Your task to perform on an android device: Open Youtube and go to the subscriptions tab Image 0: 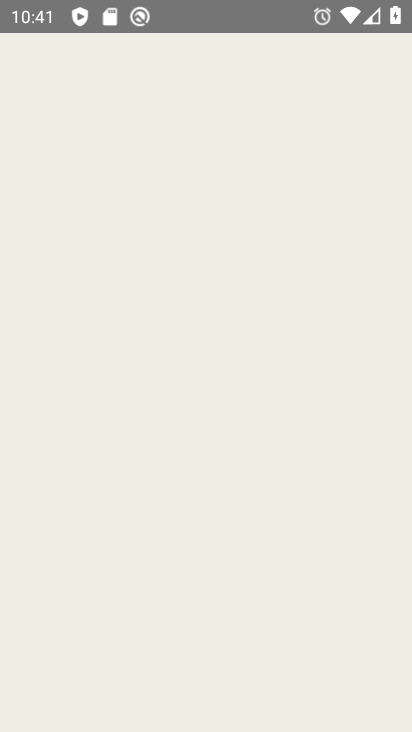
Step 0: press home button
Your task to perform on an android device: Open Youtube and go to the subscriptions tab Image 1: 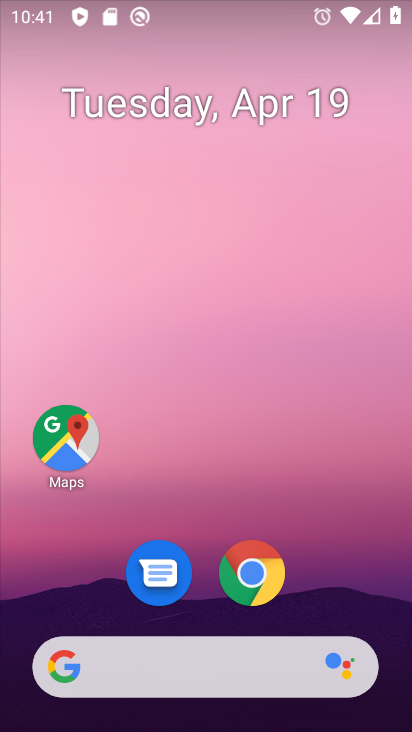
Step 1: drag from (336, 512) to (267, 77)
Your task to perform on an android device: Open Youtube and go to the subscriptions tab Image 2: 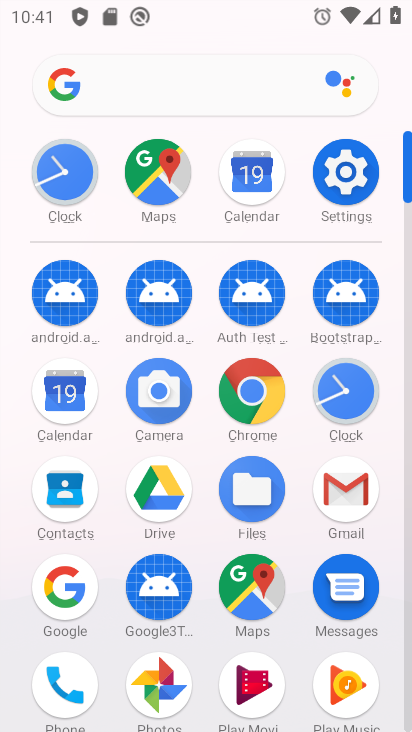
Step 2: drag from (210, 660) to (206, 230)
Your task to perform on an android device: Open Youtube and go to the subscriptions tab Image 3: 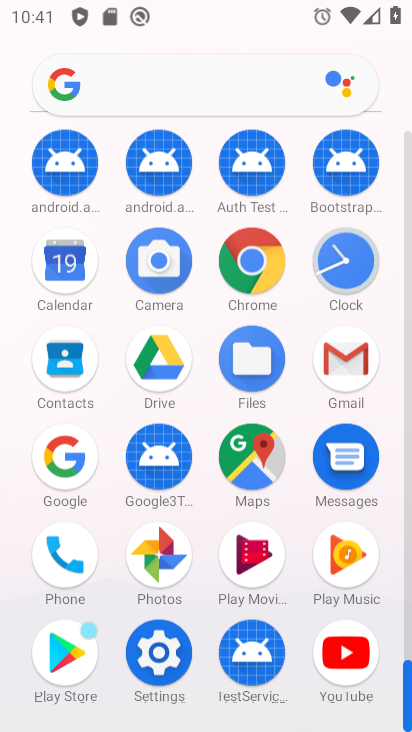
Step 3: click (338, 652)
Your task to perform on an android device: Open Youtube and go to the subscriptions tab Image 4: 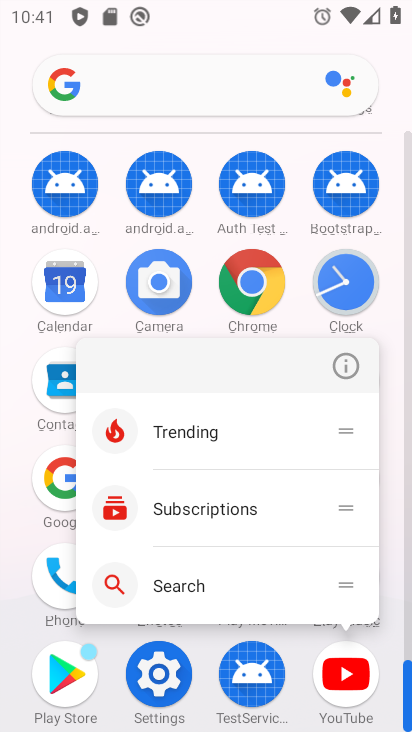
Step 4: click (187, 503)
Your task to perform on an android device: Open Youtube and go to the subscriptions tab Image 5: 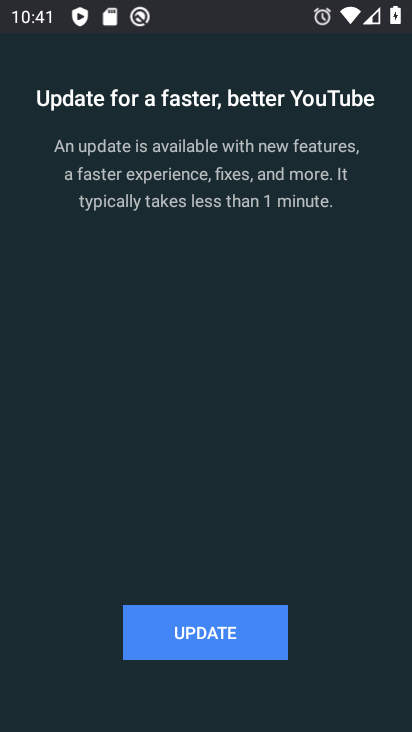
Step 5: click (238, 640)
Your task to perform on an android device: Open Youtube and go to the subscriptions tab Image 6: 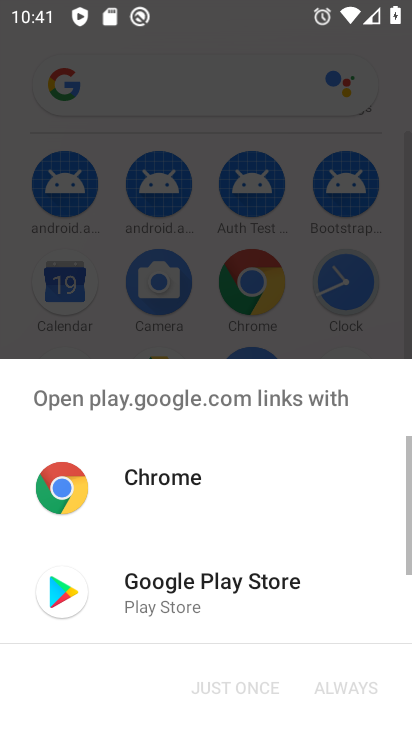
Step 6: click (178, 581)
Your task to perform on an android device: Open Youtube and go to the subscriptions tab Image 7: 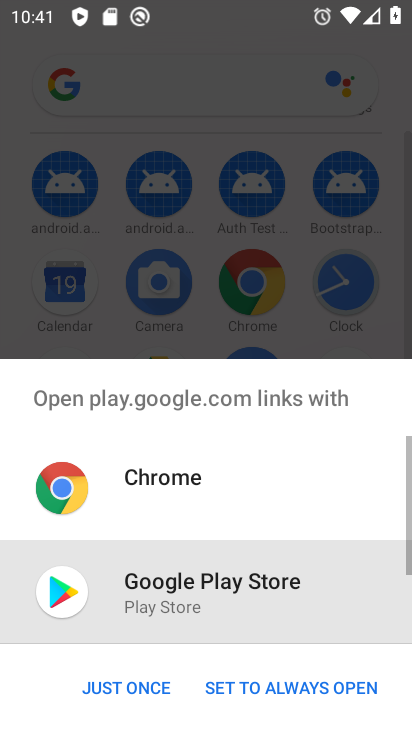
Step 7: click (149, 688)
Your task to perform on an android device: Open Youtube and go to the subscriptions tab Image 8: 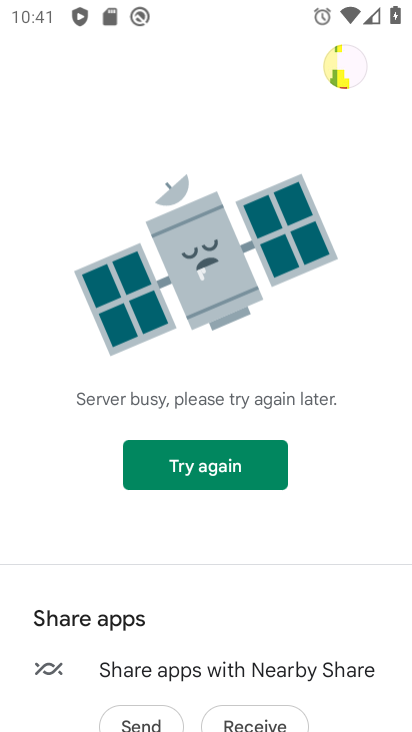
Step 8: click (211, 477)
Your task to perform on an android device: Open Youtube and go to the subscriptions tab Image 9: 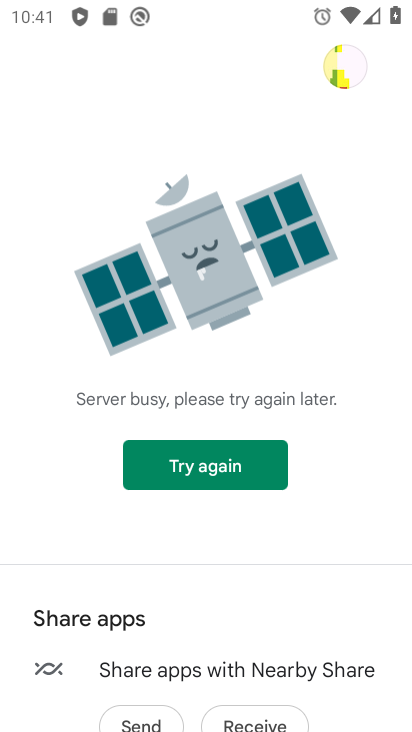
Step 9: click (211, 477)
Your task to perform on an android device: Open Youtube and go to the subscriptions tab Image 10: 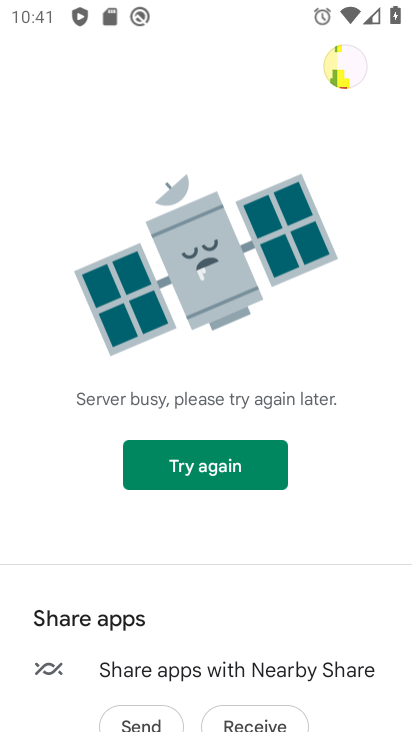
Step 10: press back button
Your task to perform on an android device: Open Youtube and go to the subscriptions tab Image 11: 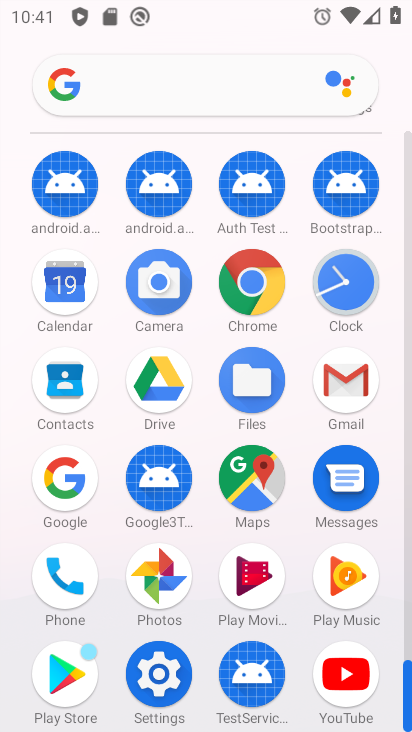
Step 11: click (332, 693)
Your task to perform on an android device: Open Youtube and go to the subscriptions tab Image 12: 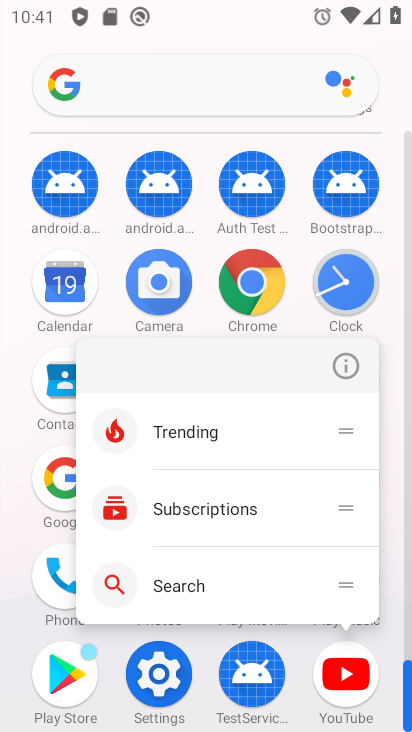
Step 12: click (203, 501)
Your task to perform on an android device: Open Youtube and go to the subscriptions tab Image 13: 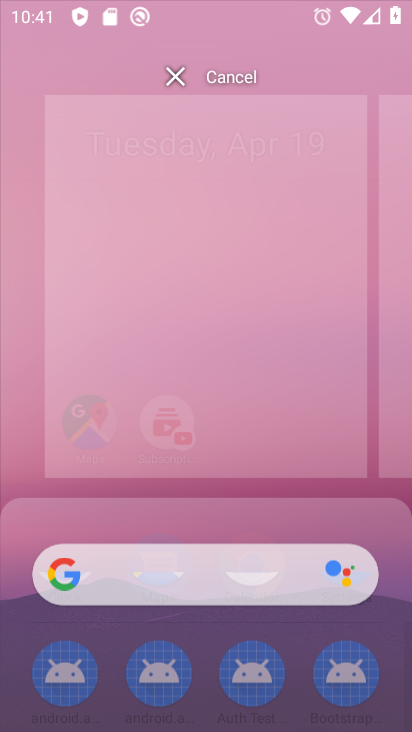
Step 13: click (203, 501)
Your task to perform on an android device: Open Youtube and go to the subscriptions tab Image 14: 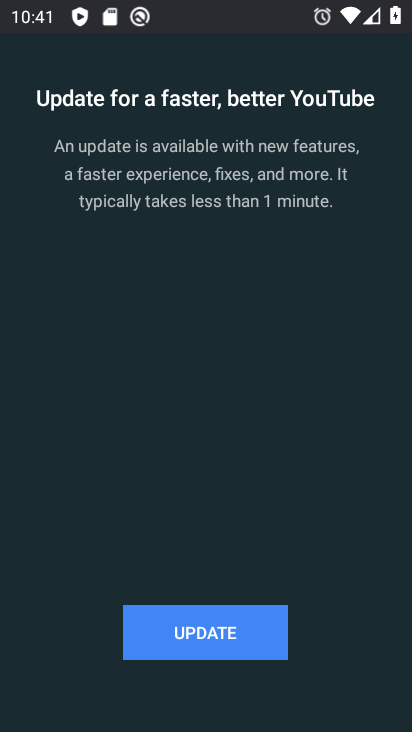
Step 14: click (150, 439)
Your task to perform on an android device: Open Youtube and go to the subscriptions tab Image 15: 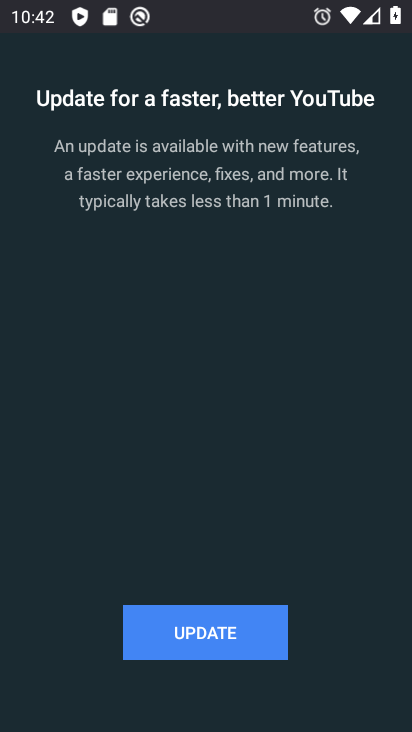
Step 15: click (150, 439)
Your task to perform on an android device: Open Youtube and go to the subscriptions tab Image 16: 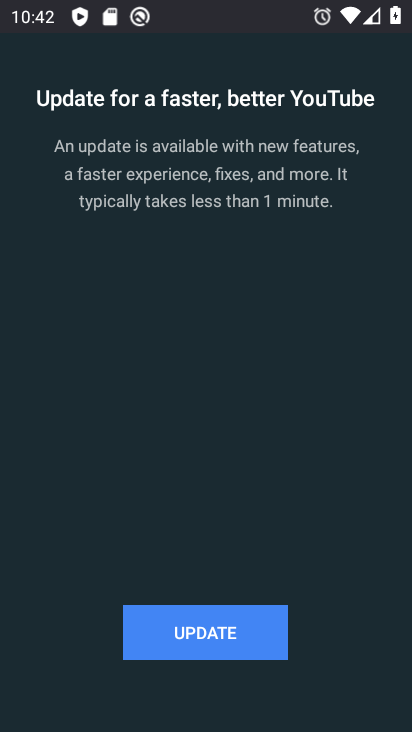
Step 16: task complete